Your task to perform on an android device: turn off translation in the chrome app Image 0: 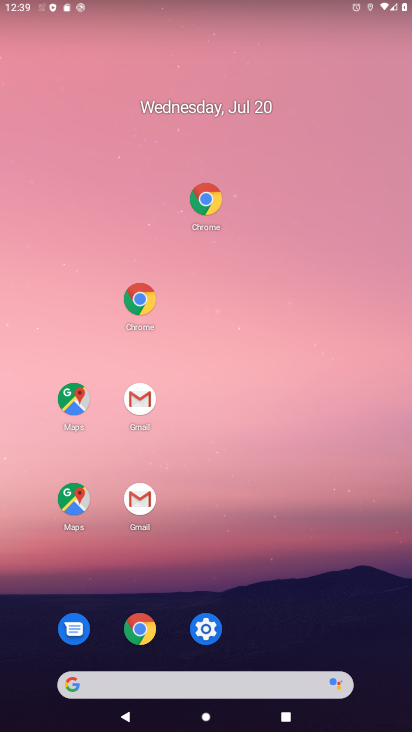
Step 0: drag from (349, 660) to (224, 239)
Your task to perform on an android device: turn off translation in the chrome app Image 1: 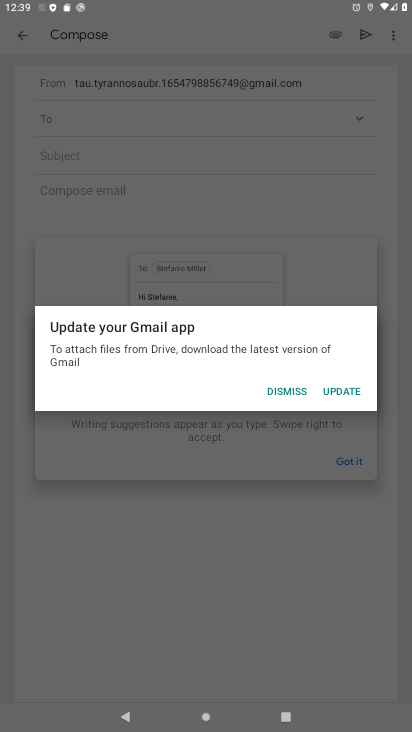
Step 1: click (282, 385)
Your task to perform on an android device: turn off translation in the chrome app Image 2: 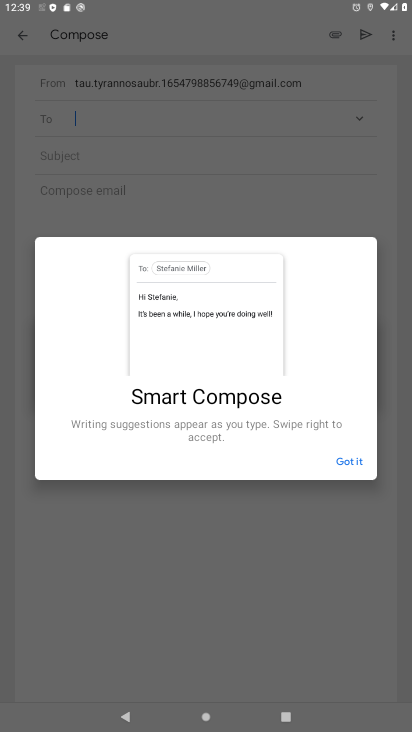
Step 2: click (354, 460)
Your task to perform on an android device: turn off translation in the chrome app Image 3: 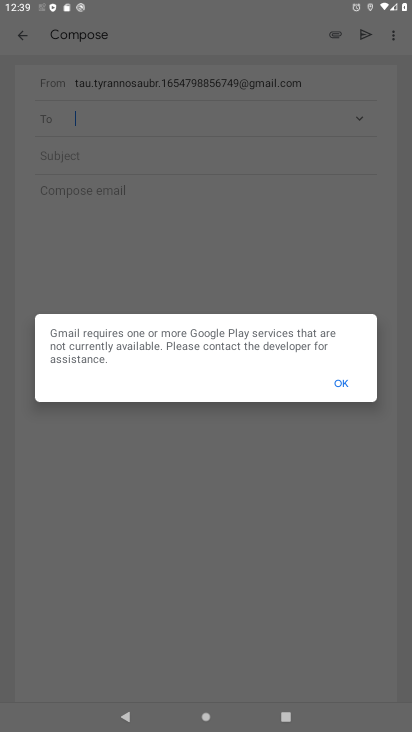
Step 3: click (343, 379)
Your task to perform on an android device: turn off translation in the chrome app Image 4: 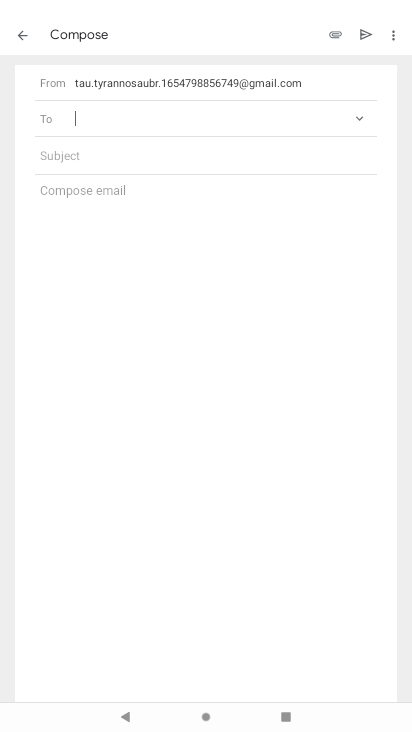
Step 4: click (25, 36)
Your task to perform on an android device: turn off translation in the chrome app Image 5: 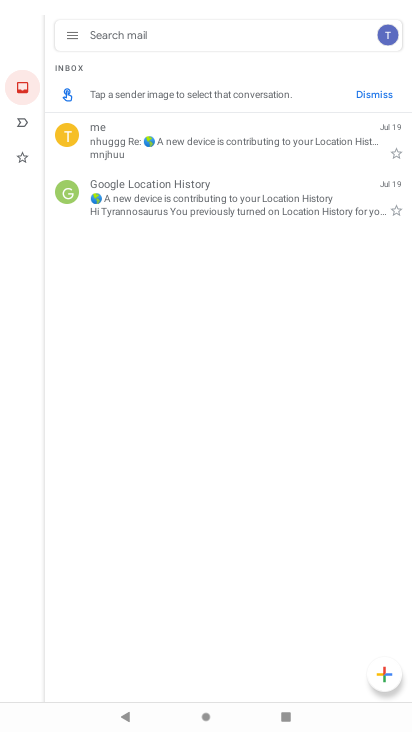
Step 5: press back button
Your task to perform on an android device: turn off translation in the chrome app Image 6: 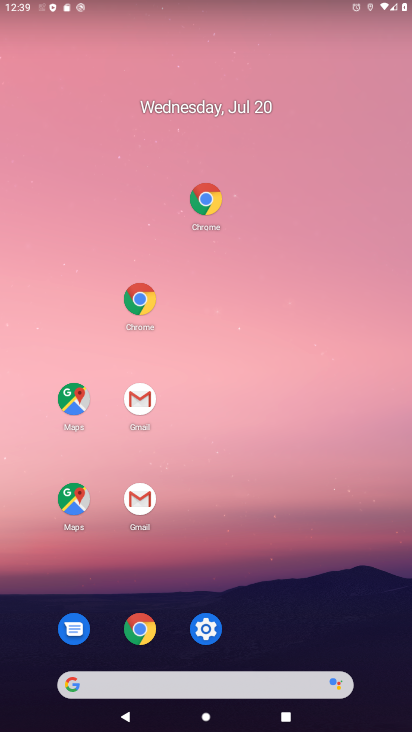
Step 6: drag from (193, 338) to (185, 82)
Your task to perform on an android device: turn off translation in the chrome app Image 7: 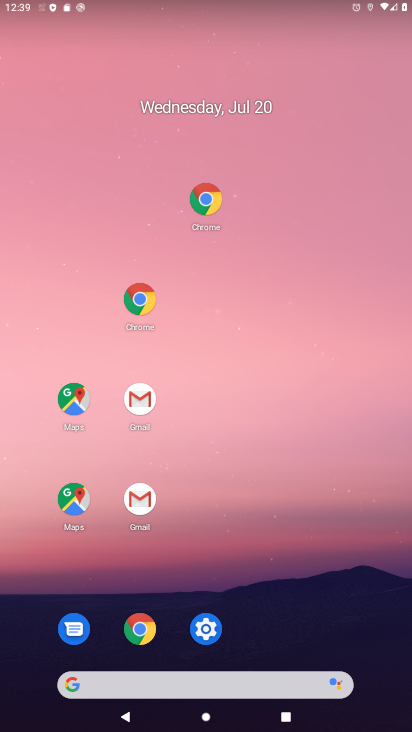
Step 7: drag from (253, 638) to (227, 171)
Your task to perform on an android device: turn off translation in the chrome app Image 8: 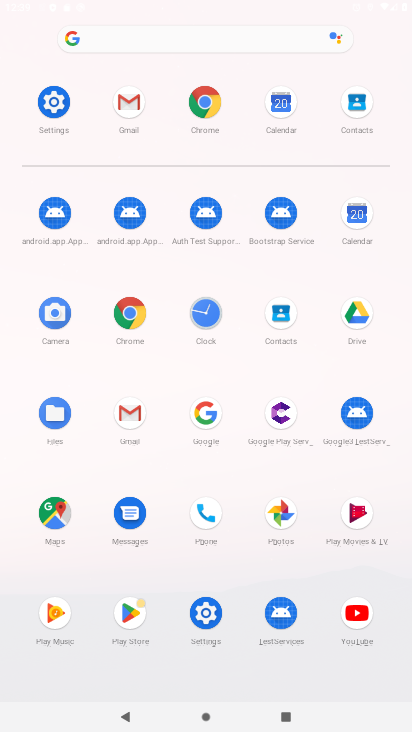
Step 8: click (209, 104)
Your task to perform on an android device: turn off translation in the chrome app Image 9: 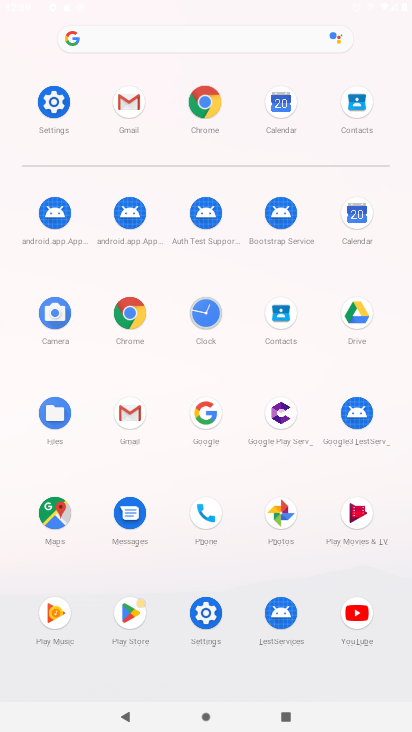
Step 9: click (211, 107)
Your task to perform on an android device: turn off translation in the chrome app Image 10: 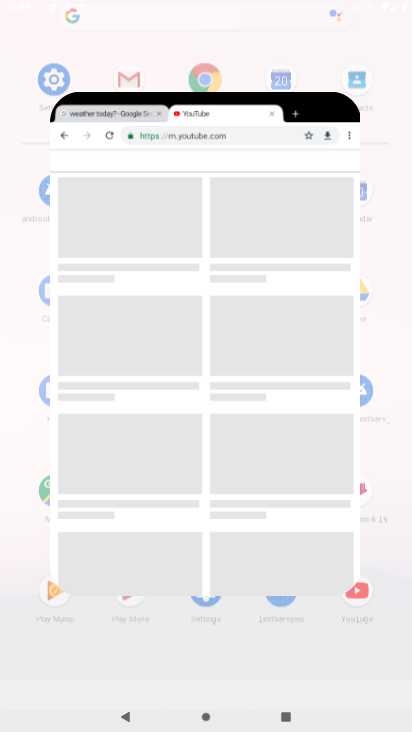
Step 10: click (214, 110)
Your task to perform on an android device: turn off translation in the chrome app Image 11: 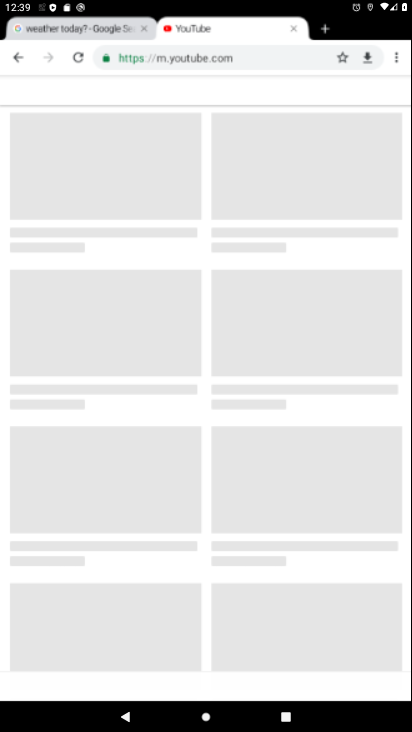
Step 11: click (194, 89)
Your task to perform on an android device: turn off translation in the chrome app Image 12: 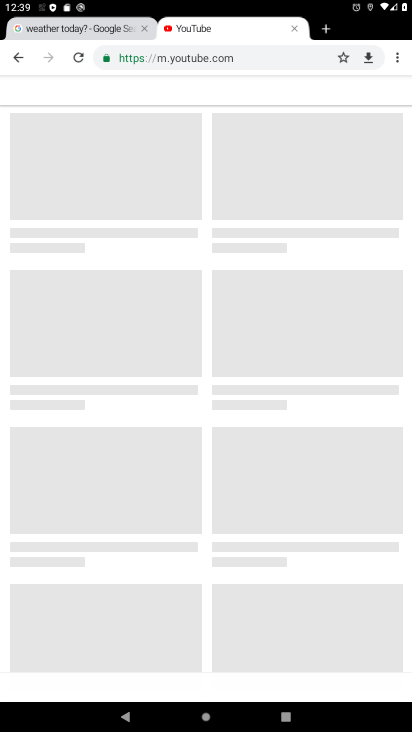
Step 12: click (294, 27)
Your task to perform on an android device: turn off translation in the chrome app Image 13: 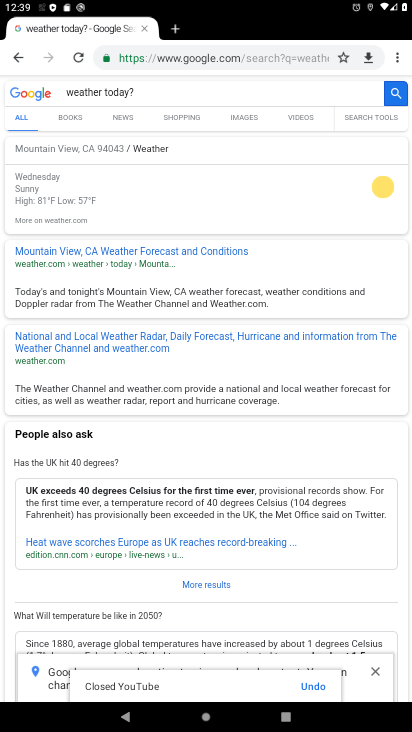
Step 13: click (145, 26)
Your task to perform on an android device: turn off translation in the chrome app Image 14: 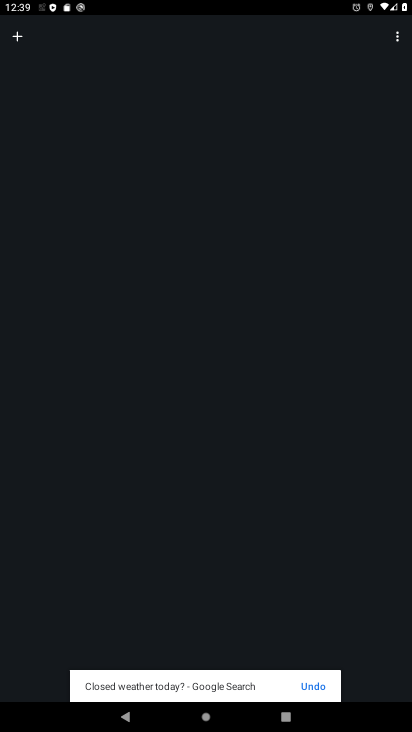
Step 14: drag from (256, 623) to (234, 307)
Your task to perform on an android device: turn off translation in the chrome app Image 15: 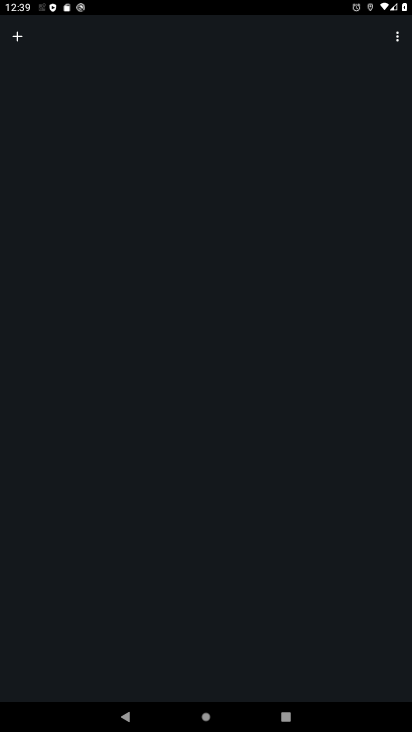
Step 15: drag from (230, 487) to (179, 42)
Your task to perform on an android device: turn off translation in the chrome app Image 16: 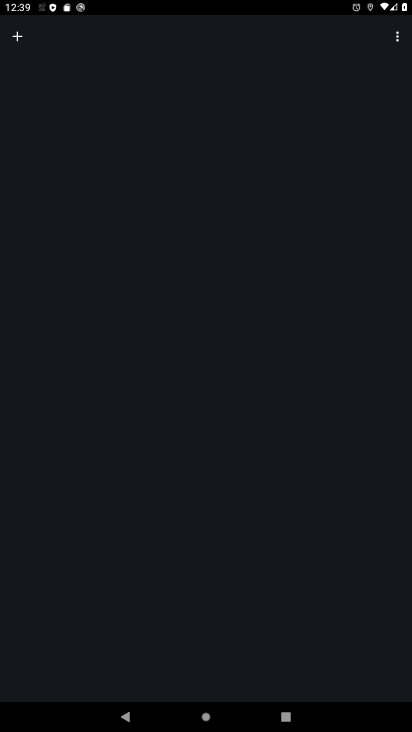
Step 16: press back button
Your task to perform on an android device: turn off translation in the chrome app Image 17: 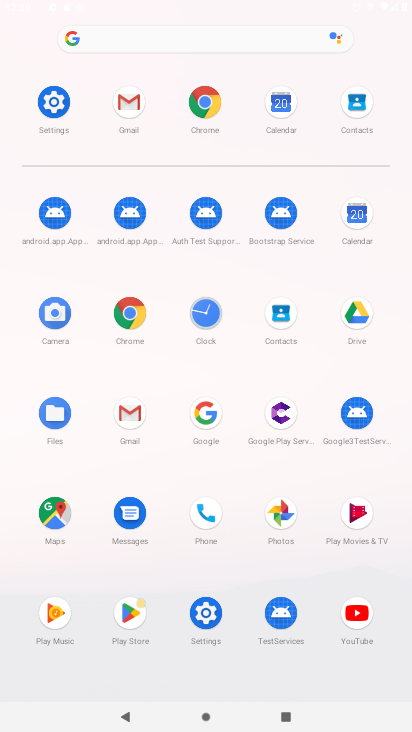
Step 17: click (213, 99)
Your task to perform on an android device: turn off translation in the chrome app Image 18: 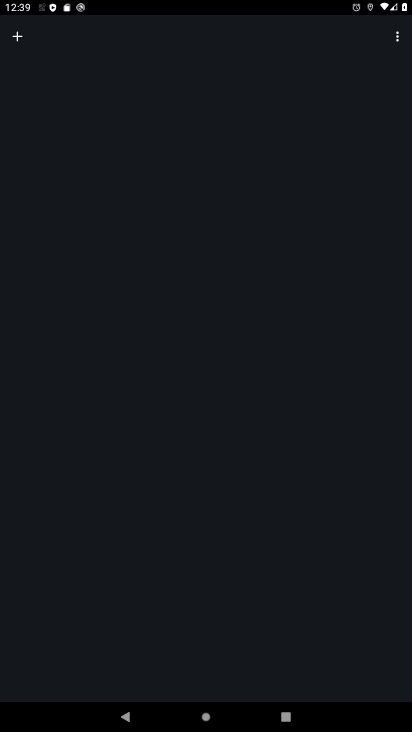
Step 18: drag from (397, 42) to (234, 178)
Your task to perform on an android device: turn off translation in the chrome app Image 19: 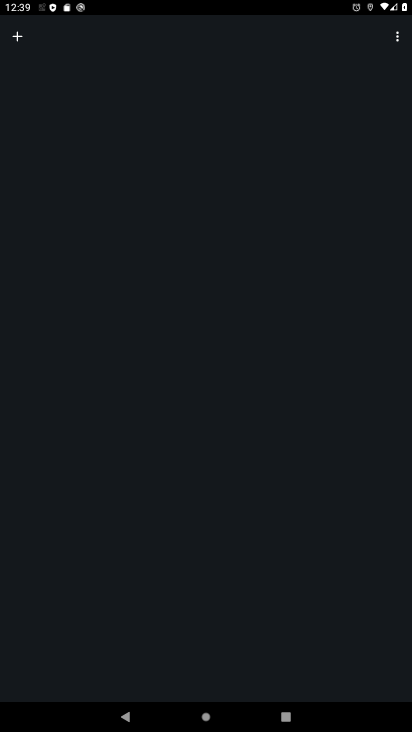
Step 19: click (20, 40)
Your task to perform on an android device: turn off translation in the chrome app Image 20: 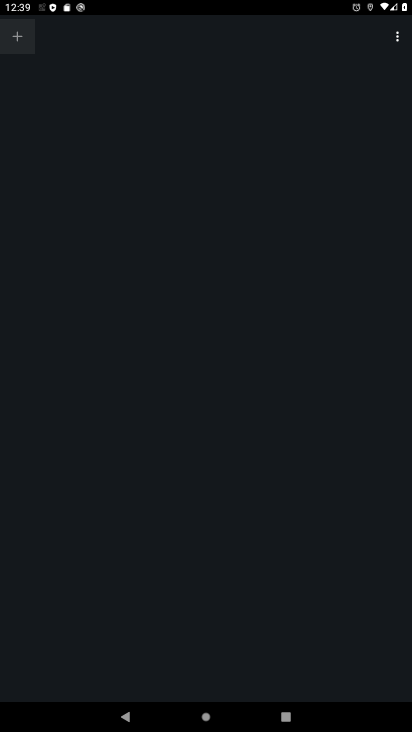
Step 20: click (20, 39)
Your task to perform on an android device: turn off translation in the chrome app Image 21: 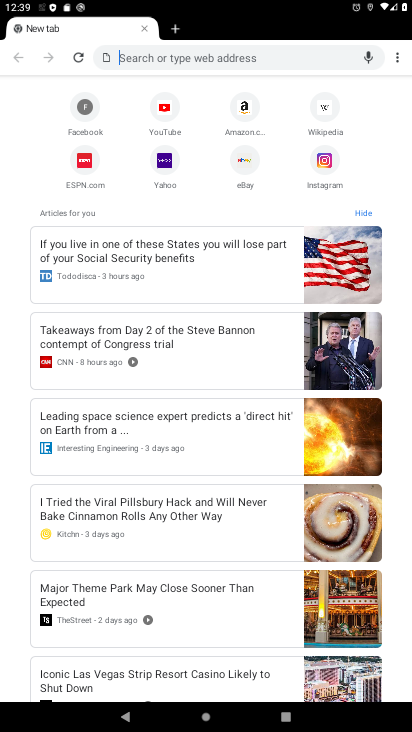
Step 21: drag from (400, 63) to (395, 148)
Your task to perform on an android device: turn off translation in the chrome app Image 22: 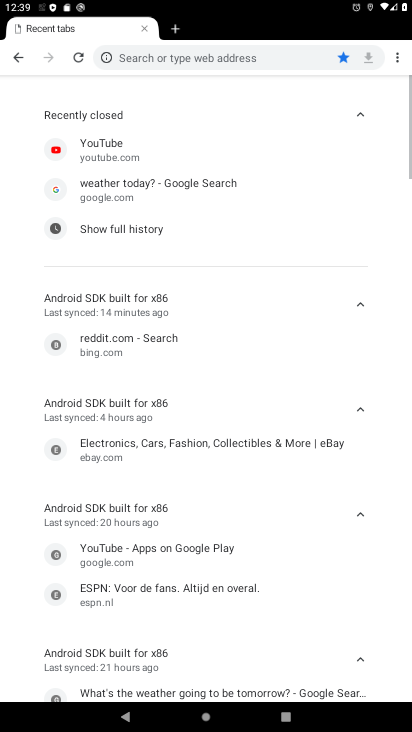
Step 22: drag from (400, 59) to (291, 260)
Your task to perform on an android device: turn off translation in the chrome app Image 23: 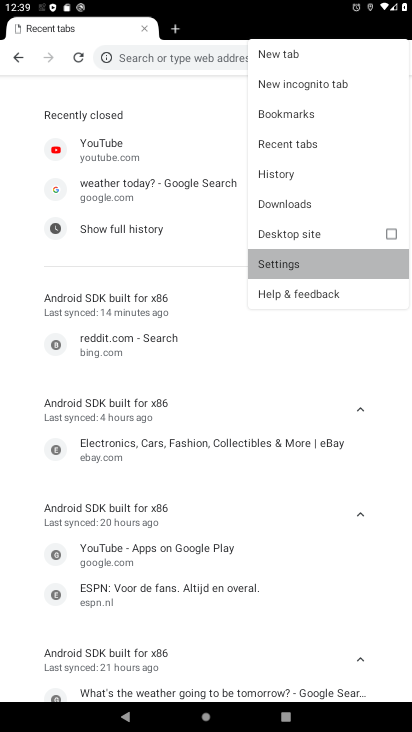
Step 23: click (291, 260)
Your task to perform on an android device: turn off translation in the chrome app Image 24: 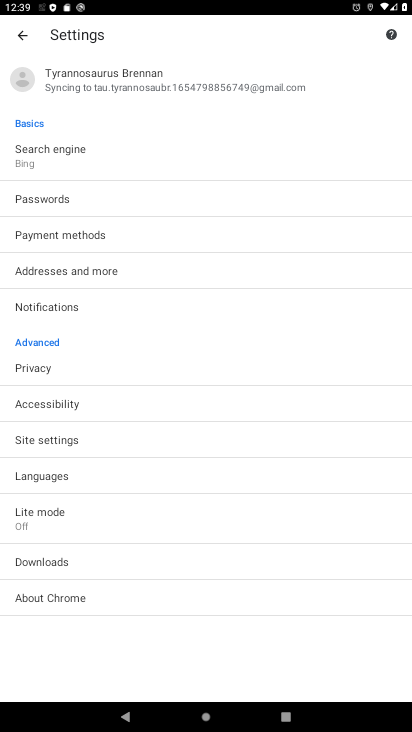
Step 24: click (59, 475)
Your task to perform on an android device: turn off translation in the chrome app Image 25: 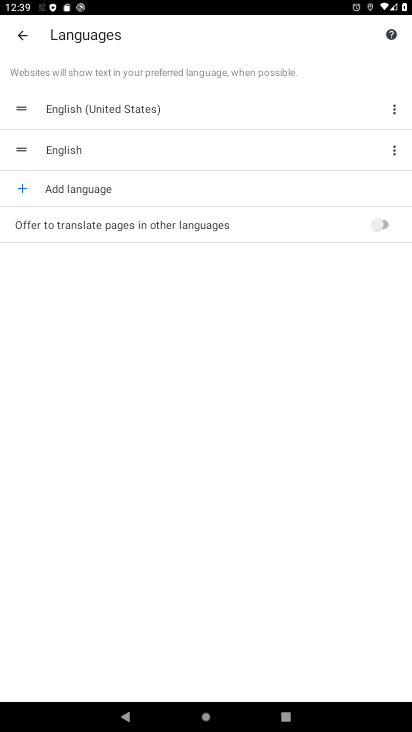
Step 25: click (380, 223)
Your task to perform on an android device: turn off translation in the chrome app Image 26: 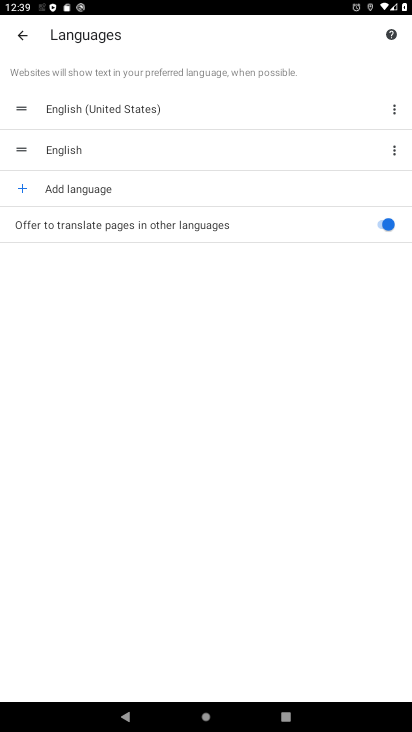
Step 26: task complete